Your task to perform on an android device: change notification settings in the gmail app Image 0: 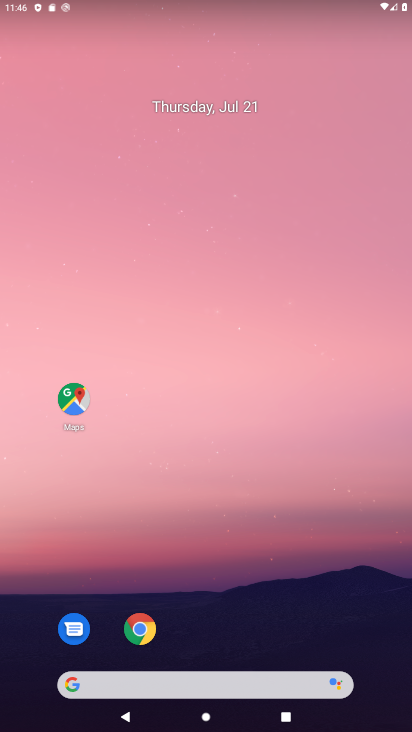
Step 0: drag from (253, 626) to (167, 223)
Your task to perform on an android device: change notification settings in the gmail app Image 1: 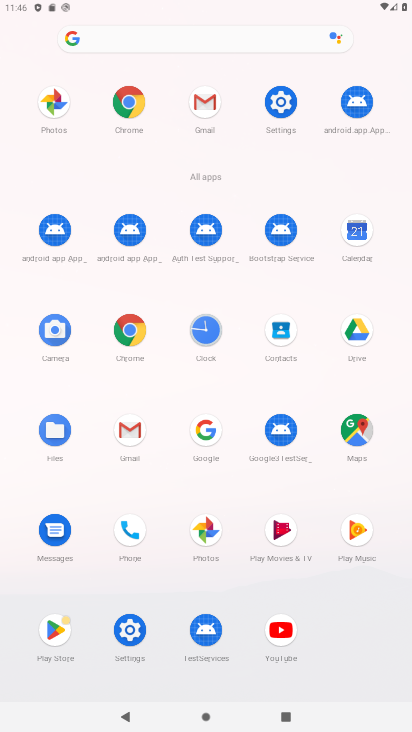
Step 1: drag from (186, 619) to (124, 110)
Your task to perform on an android device: change notification settings in the gmail app Image 2: 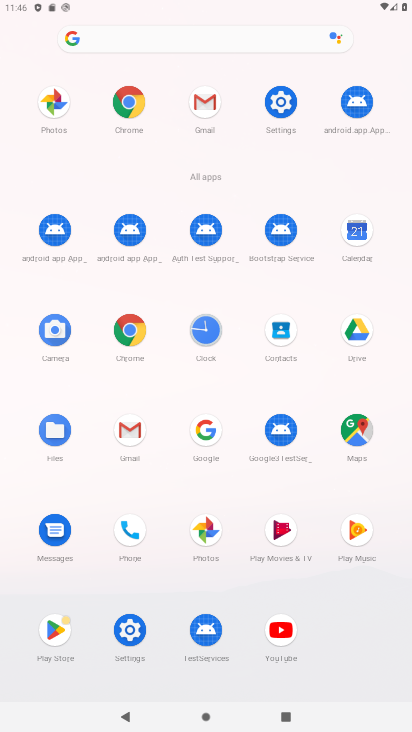
Step 2: click (123, 429)
Your task to perform on an android device: change notification settings in the gmail app Image 3: 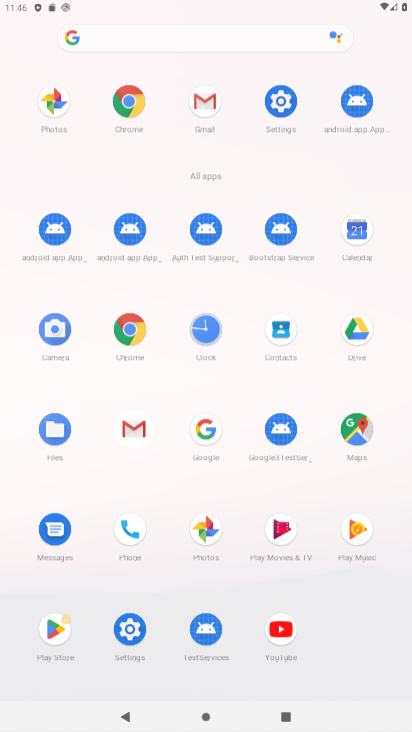
Step 3: click (121, 425)
Your task to perform on an android device: change notification settings in the gmail app Image 4: 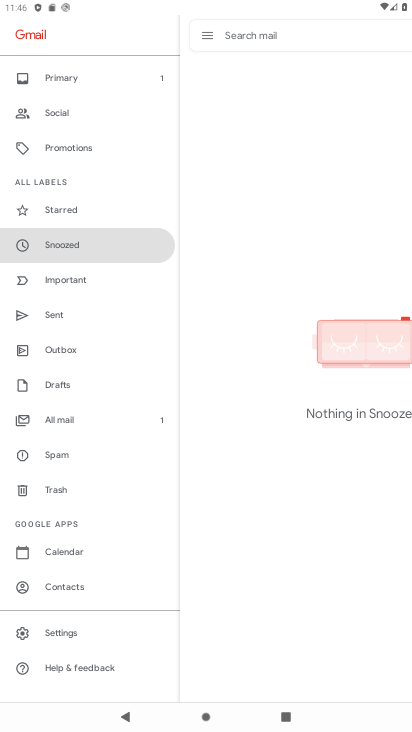
Step 4: click (127, 429)
Your task to perform on an android device: change notification settings in the gmail app Image 5: 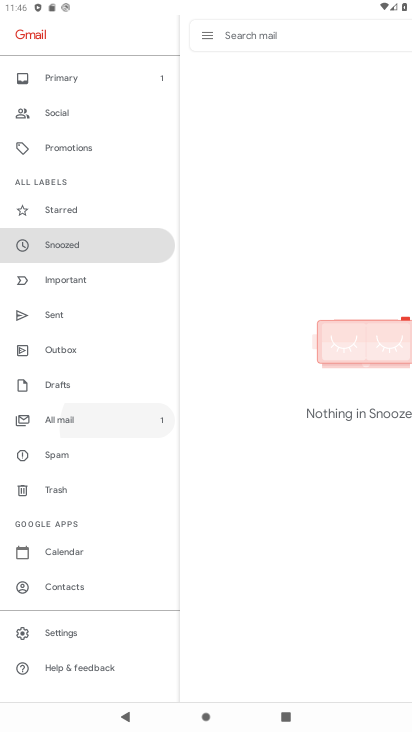
Step 5: click (129, 429)
Your task to perform on an android device: change notification settings in the gmail app Image 6: 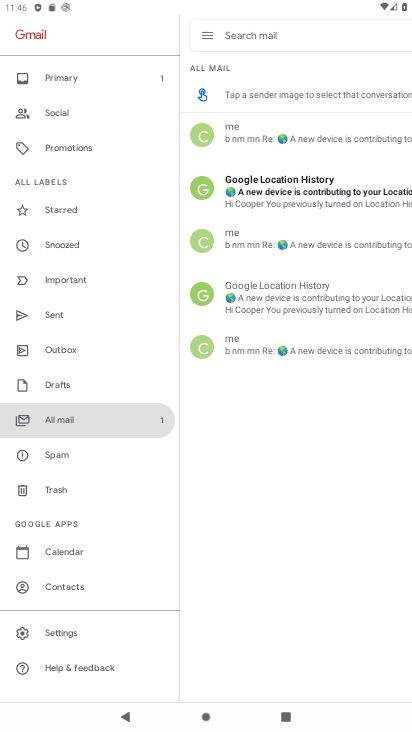
Step 6: click (131, 426)
Your task to perform on an android device: change notification settings in the gmail app Image 7: 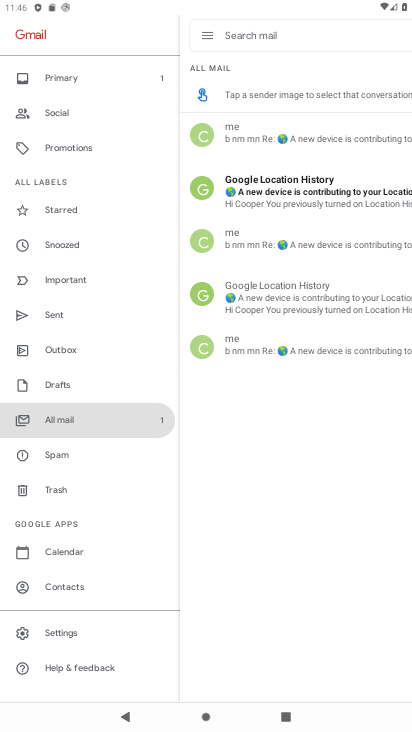
Step 7: click (62, 414)
Your task to perform on an android device: change notification settings in the gmail app Image 8: 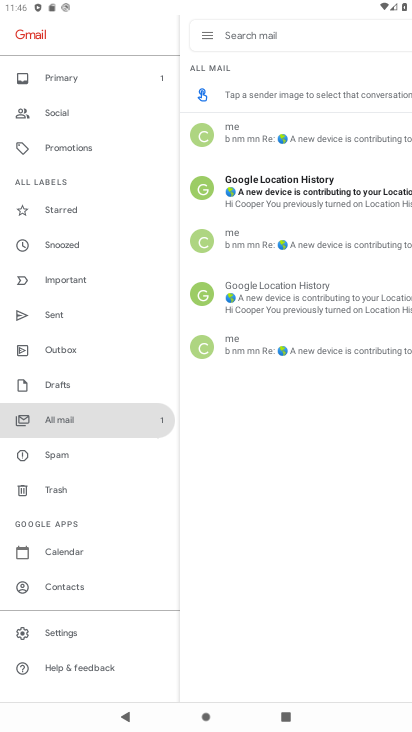
Step 8: click (62, 414)
Your task to perform on an android device: change notification settings in the gmail app Image 9: 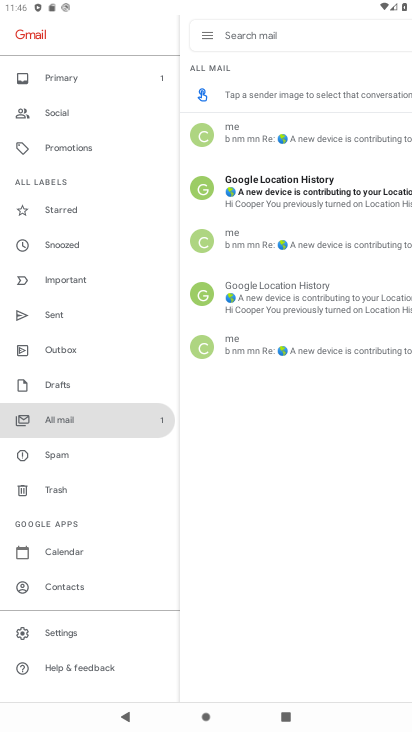
Step 9: click (57, 626)
Your task to perform on an android device: change notification settings in the gmail app Image 10: 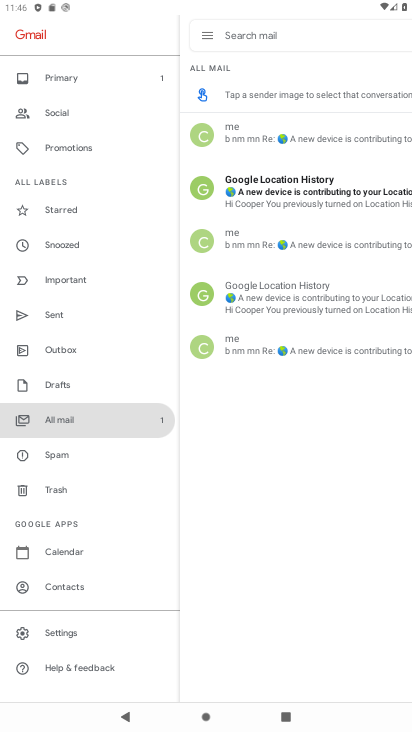
Step 10: click (60, 625)
Your task to perform on an android device: change notification settings in the gmail app Image 11: 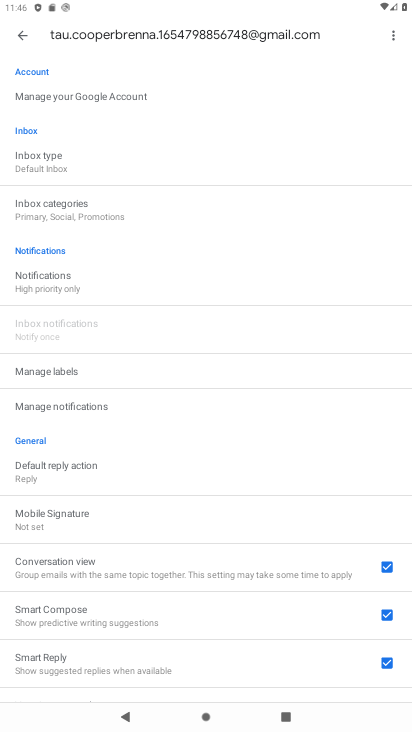
Step 11: click (41, 284)
Your task to perform on an android device: change notification settings in the gmail app Image 12: 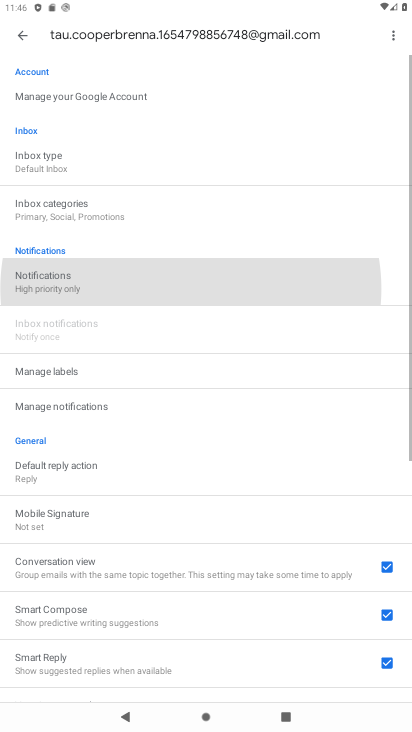
Step 12: click (61, 279)
Your task to perform on an android device: change notification settings in the gmail app Image 13: 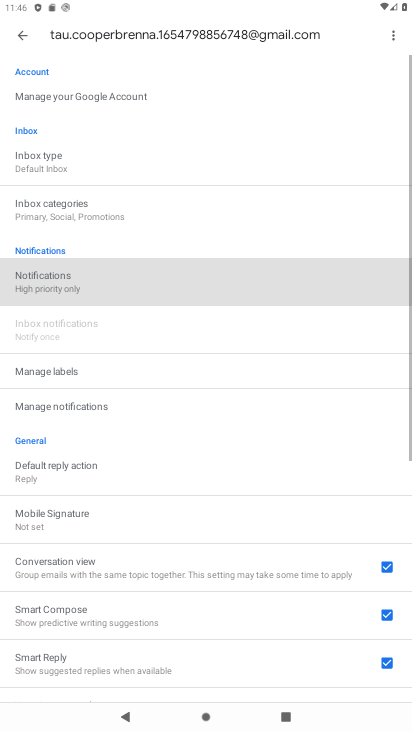
Step 13: click (61, 279)
Your task to perform on an android device: change notification settings in the gmail app Image 14: 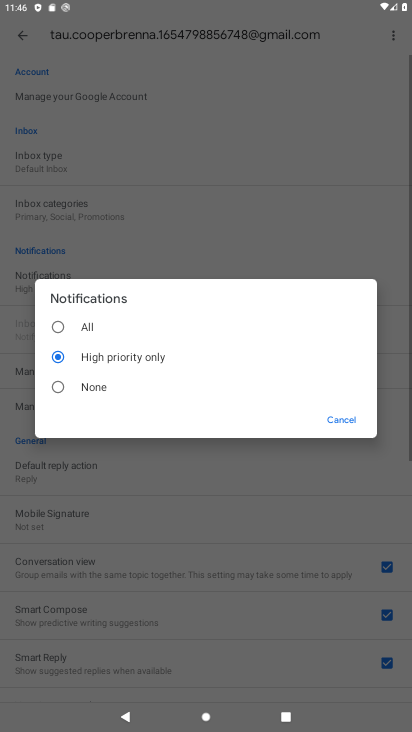
Step 14: click (61, 279)
Your task to perform on an android device: change notification settings in the gmail app Image 15: 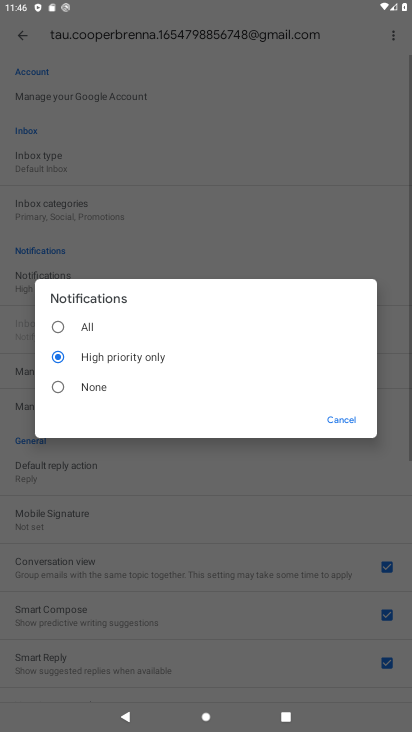
Step 15: click (54, 321)
Your task to perform on an android device: change notification settings in the gmail app Image 16: 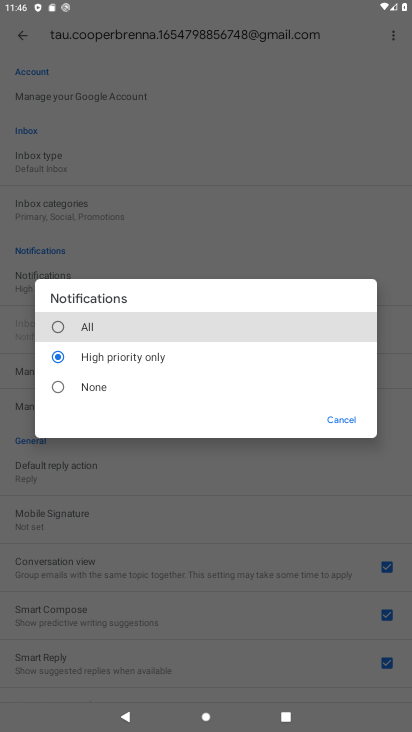
Step 16: click (54, 322)
Your task to perform on an android device: change notification settings in the gmail app Image 17: 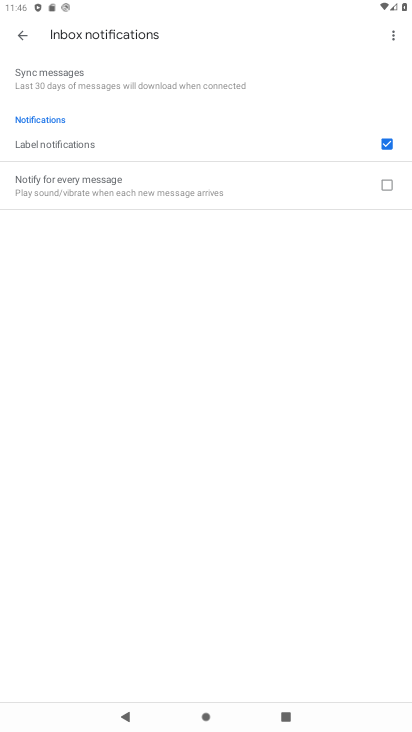
Step 17: click (25, 34)
Your task to perform on an android device: change notification settings in the gmail app Image 18: 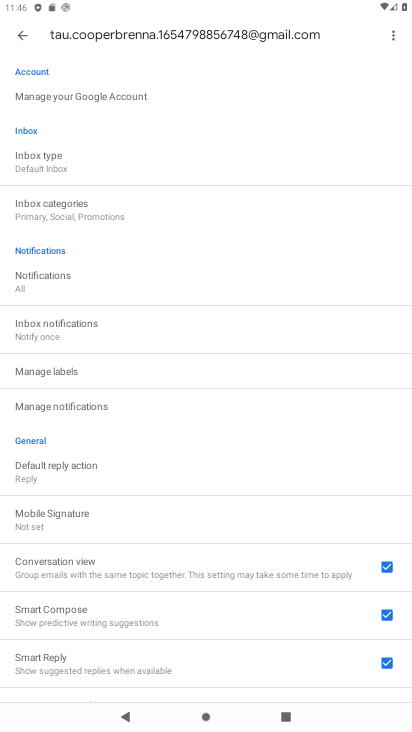
Step 18: task complete